Your task to perform on an android device: Go to settings Image 0: 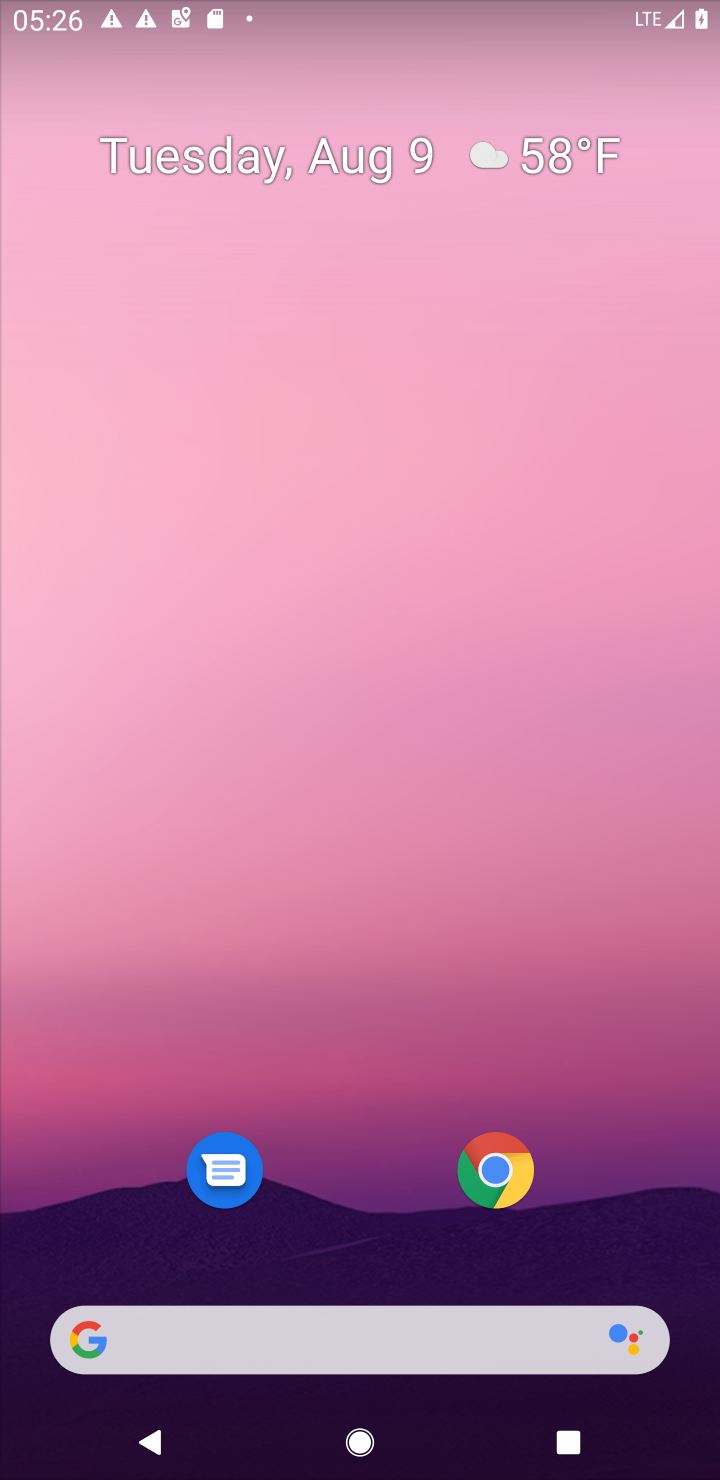
Step 0: press home button
Your task to perform on an android device: Go to settings Image 1: 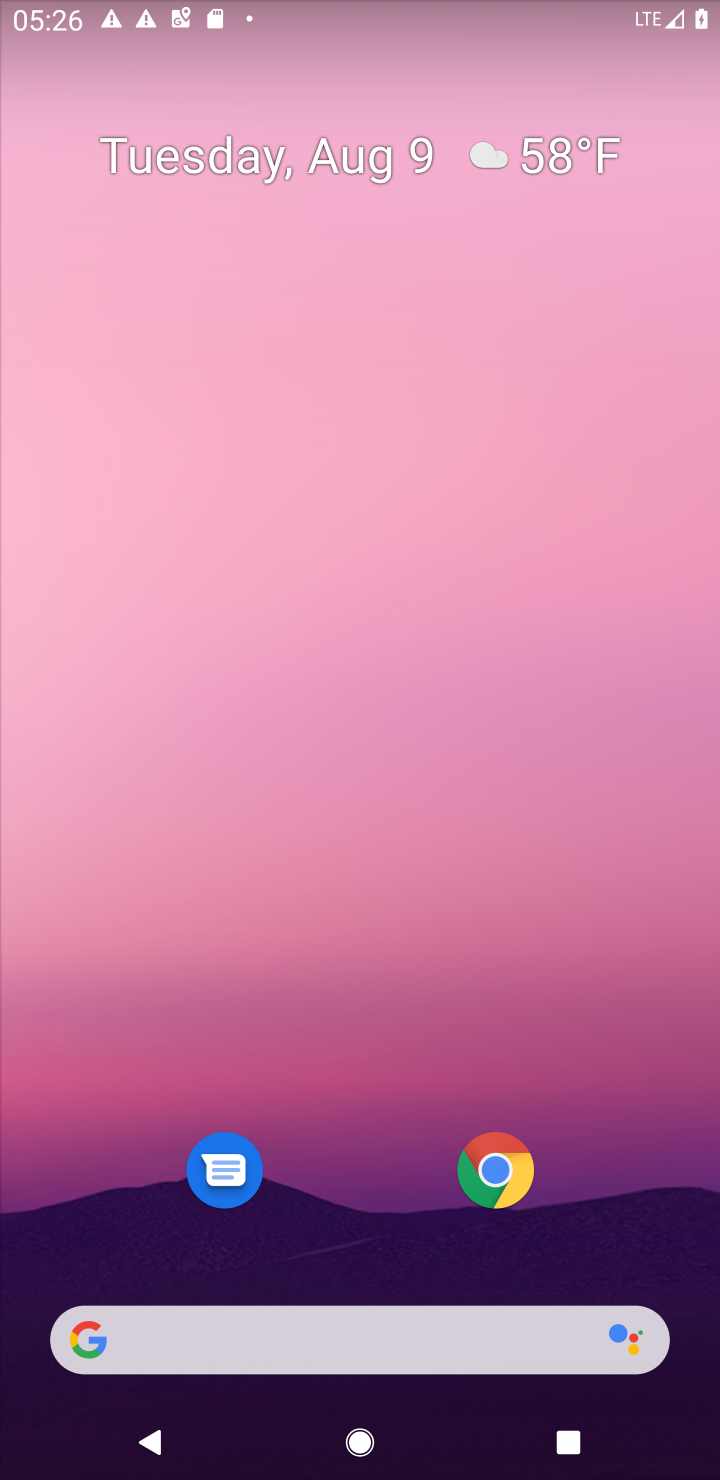
Step 1: drag from (392, 1237) to (588, 1)
Your task to perform on an android device: Go to settings Image 2: 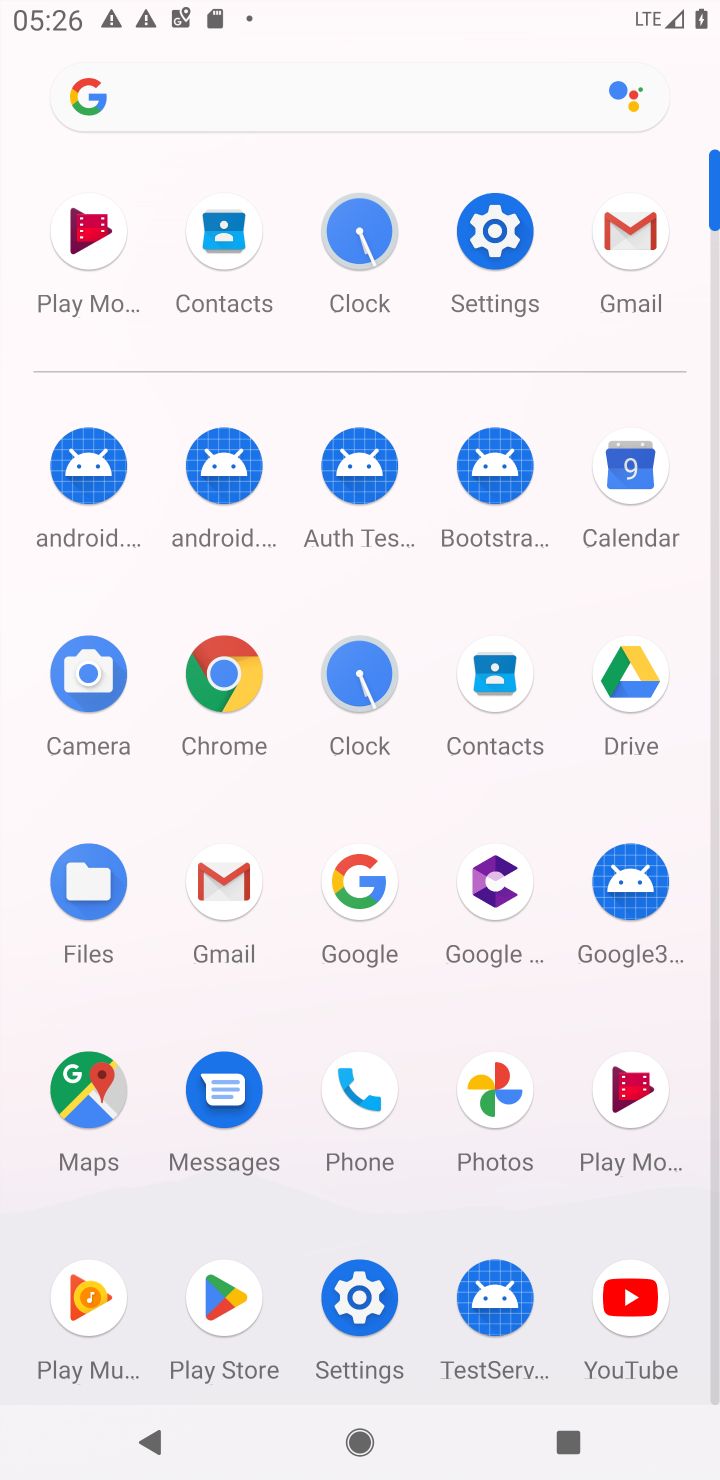
Step 2: click (489, 232)
Your task to perform on an android device: Go to settings Image 3: 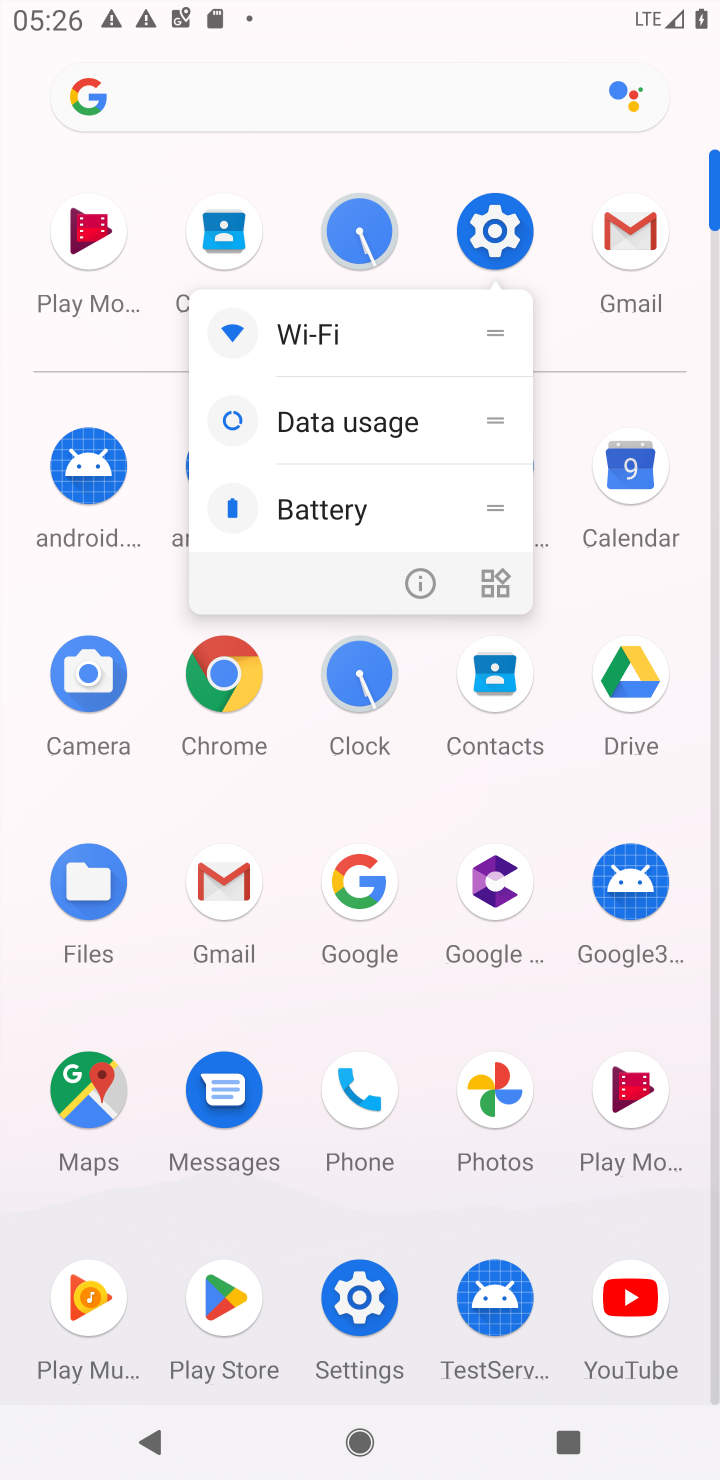
Step 3: click (505, 233)
Your task to perform on an android device: Go to settings Image 4: 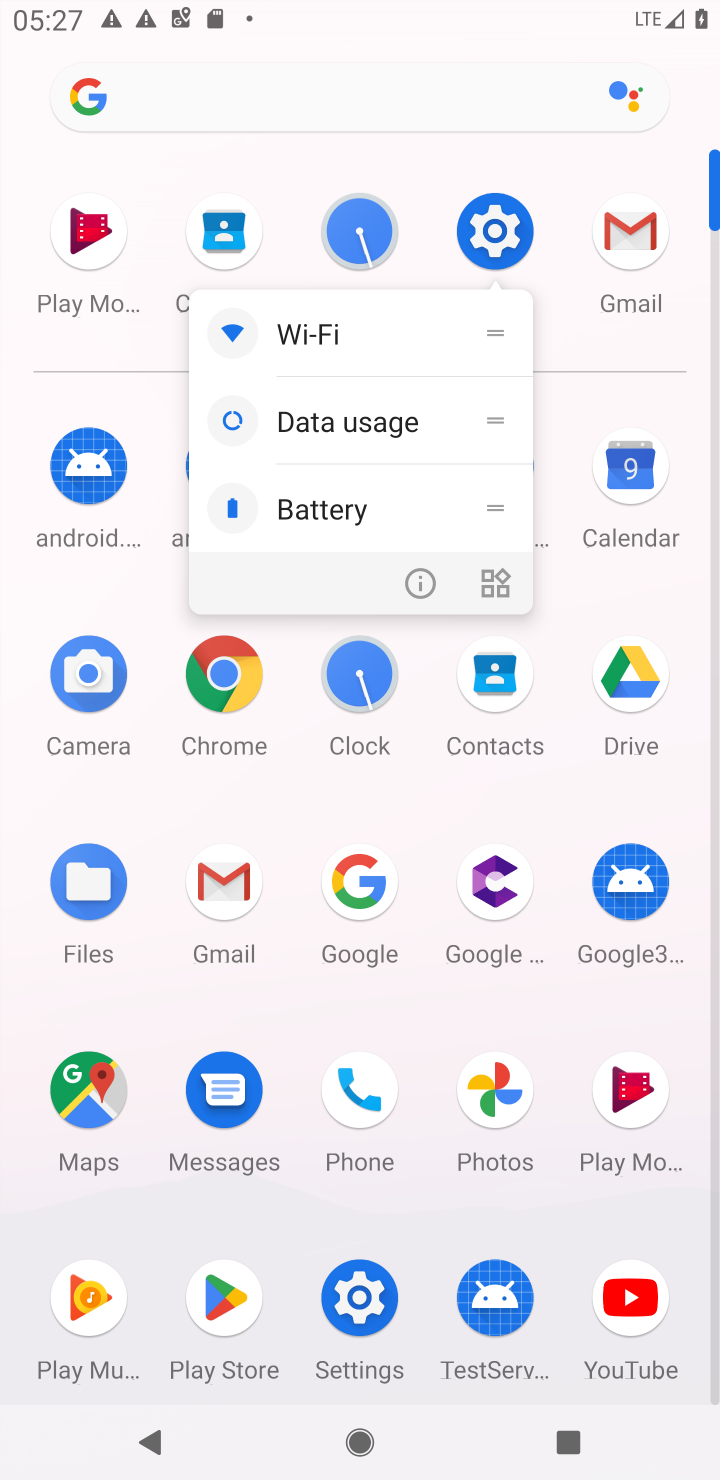
Step 4: click (506, 220)
Your task to perform on an android device: Go to settings Image 5: 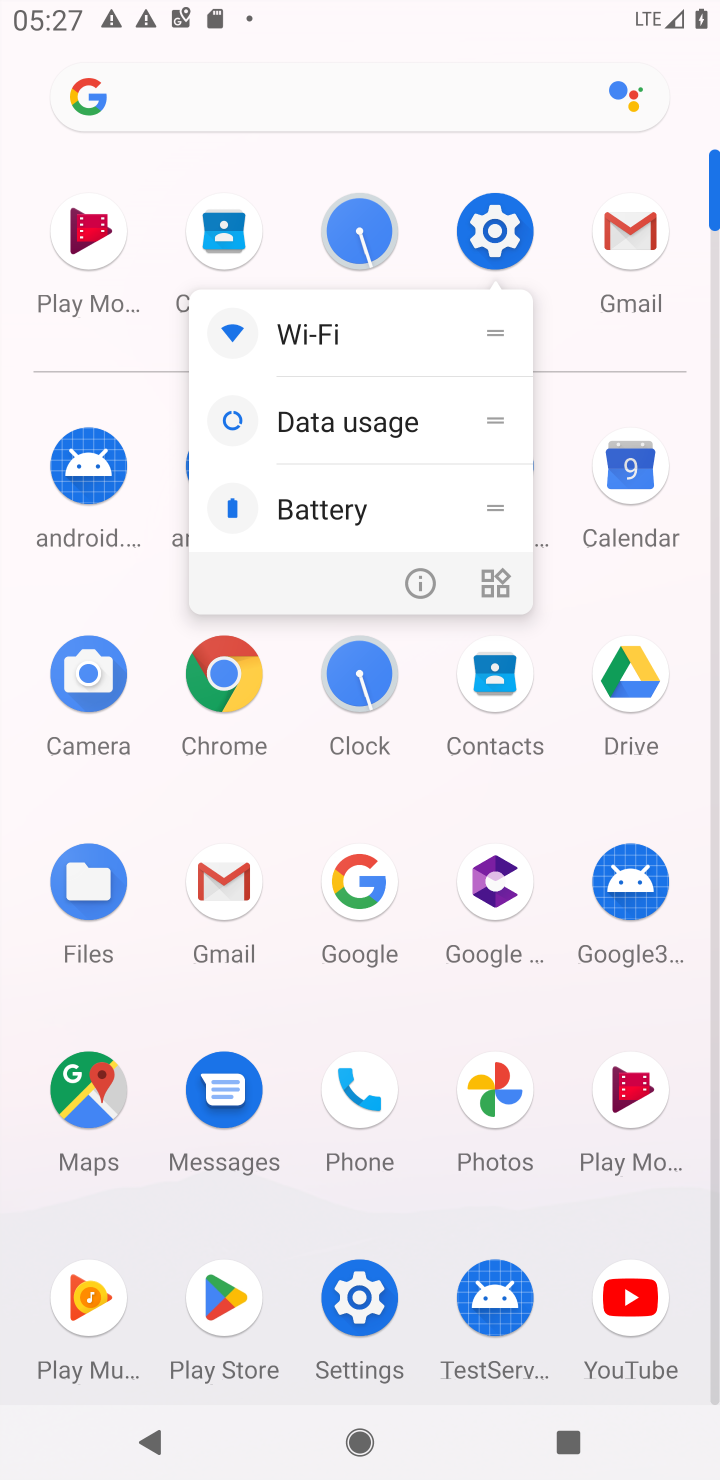
Step 5: click (502, 233)
Your task to perform on an android device: Go to settings Image 6: 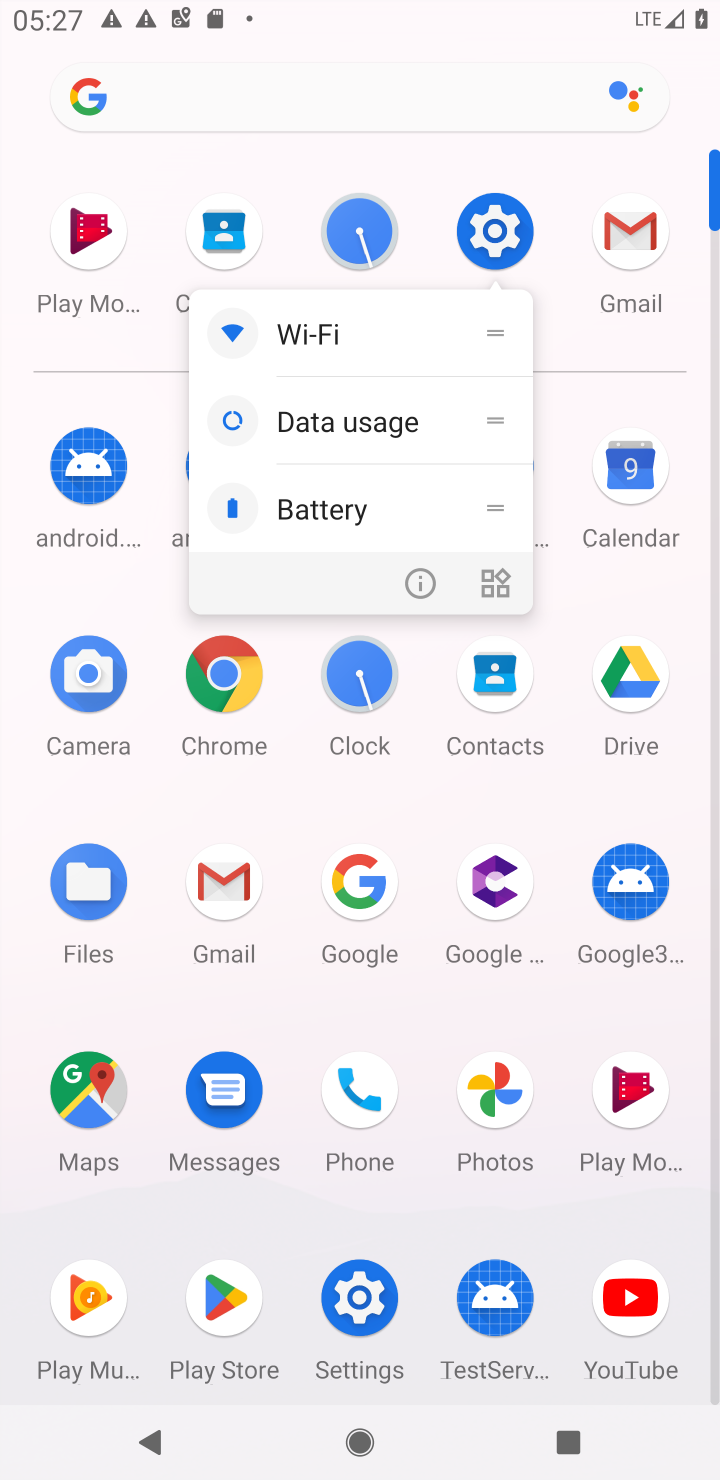
Step 6: click (493, 244)
Your task to perform on an android device: Go to settings Image 7: 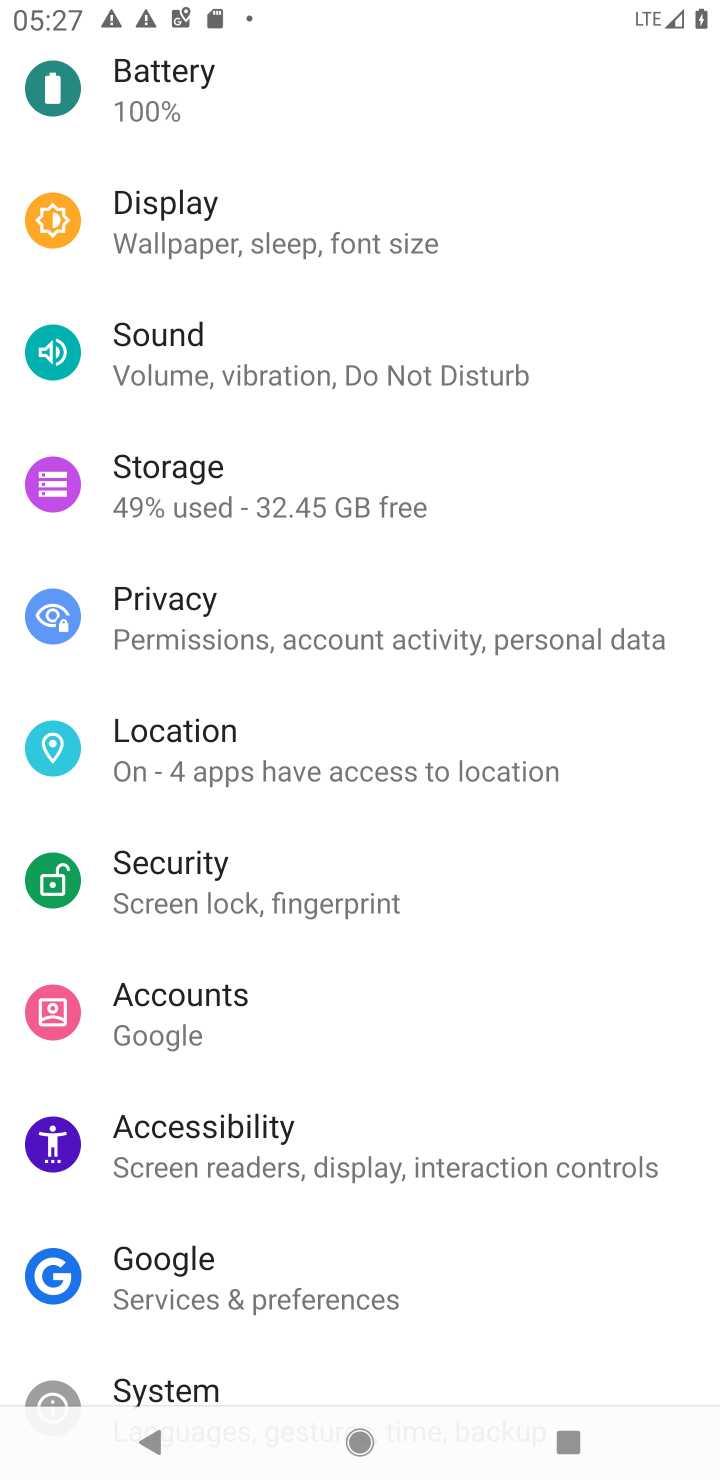
Step 7: task complete